Your task to perform on an android device: Go to ESPN.com Image 0: 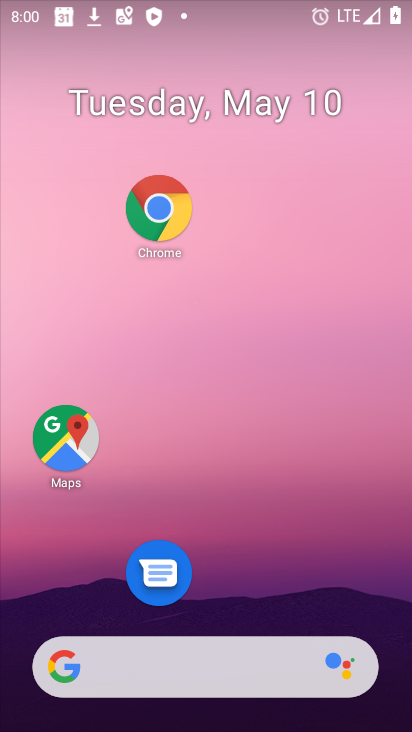
Step 0: drag from (309, 699) to (405, 268)
Your task to perform on an android device: Go to ESPN.com Image 1: 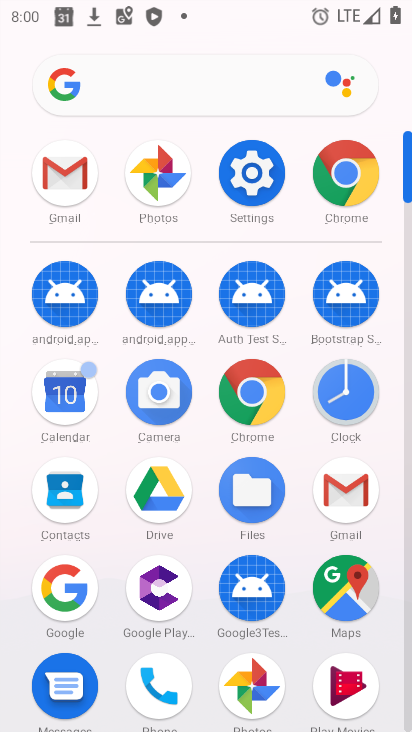
Step 1: click (352, 181)
Your task to perform on an android device: Go to ESPN.com Image 2: 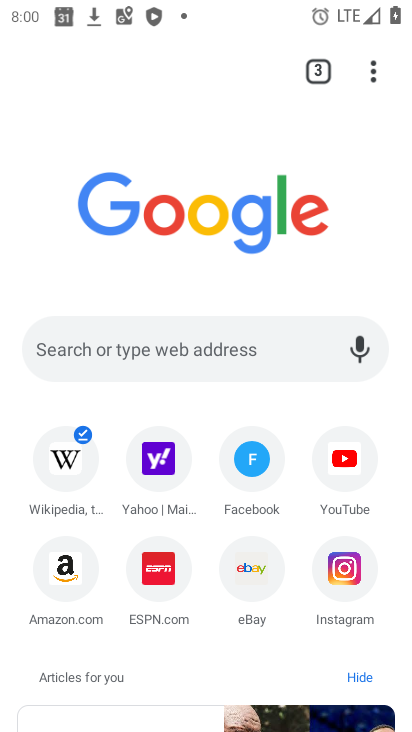
Step 2: click (157, 591)
Your task to perform on an android device: Go to ESPN.com Image 3: 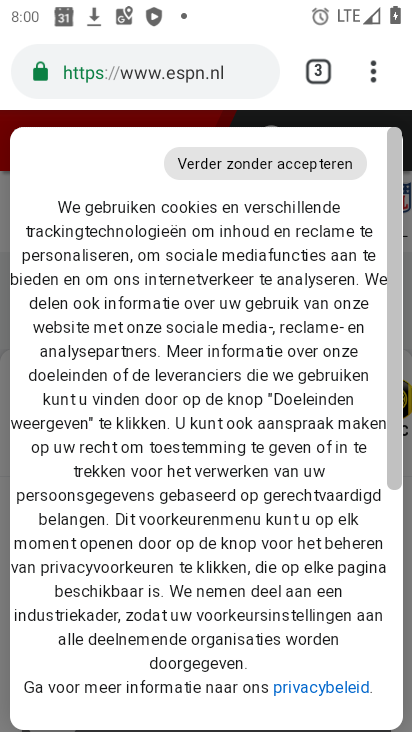
Step 3: drag from (157, 591) to (230, 297)
Your task to perform on an android device: Go to ESPN.com Image 4: 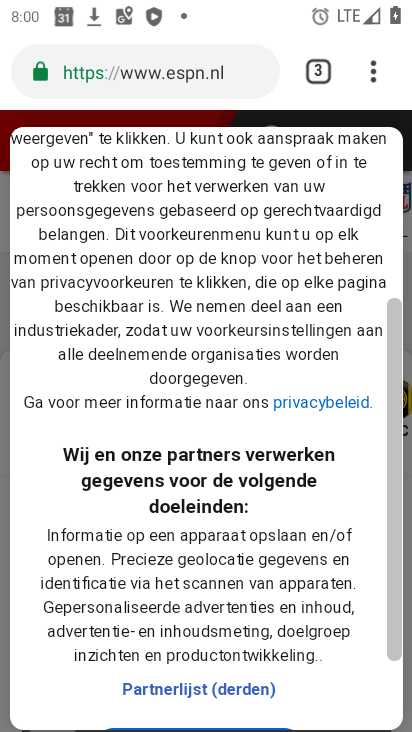
Step 4: drag from (246, 520) to (284, 266)
Your task to perform on an android device: Go to ESPN.com Image 5: 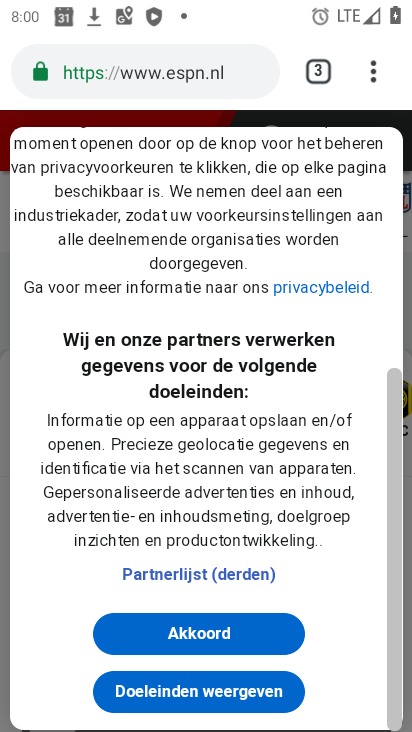
Step 5: click (245, 630)
Your task to perform on an android device: Go to ESPN.com Image 6: 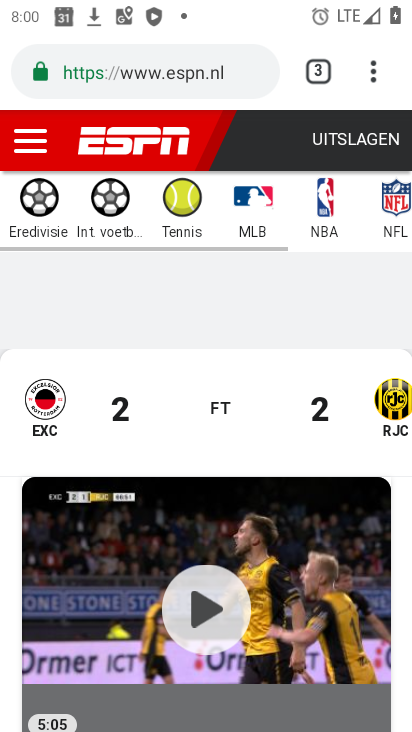
Step 6: task complete